Your task to perform on an android device: install app "Adobe Acrobat Reader" Image 0: 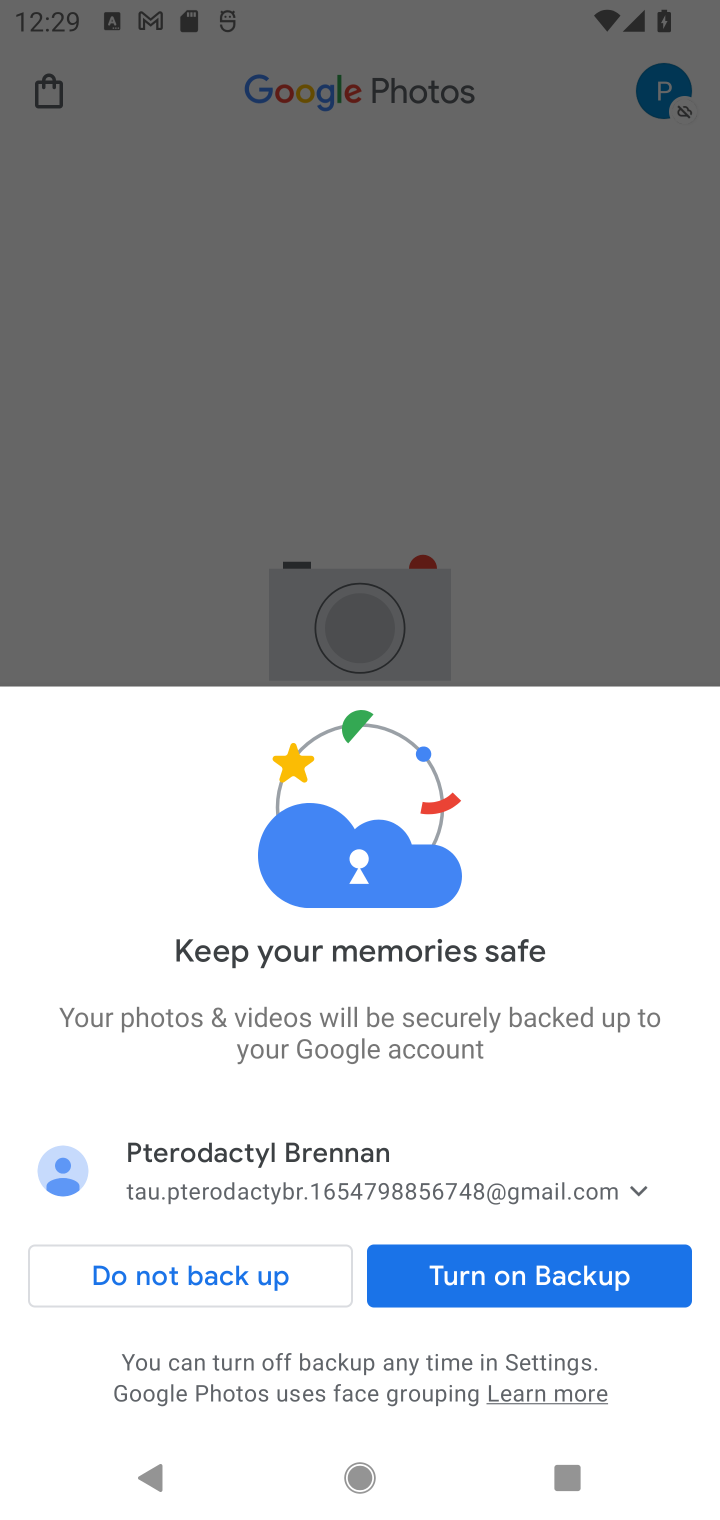
Step 0: press home button
Your task to perform on an android device: install app "Adobe Acrobat Reader" Image 1: 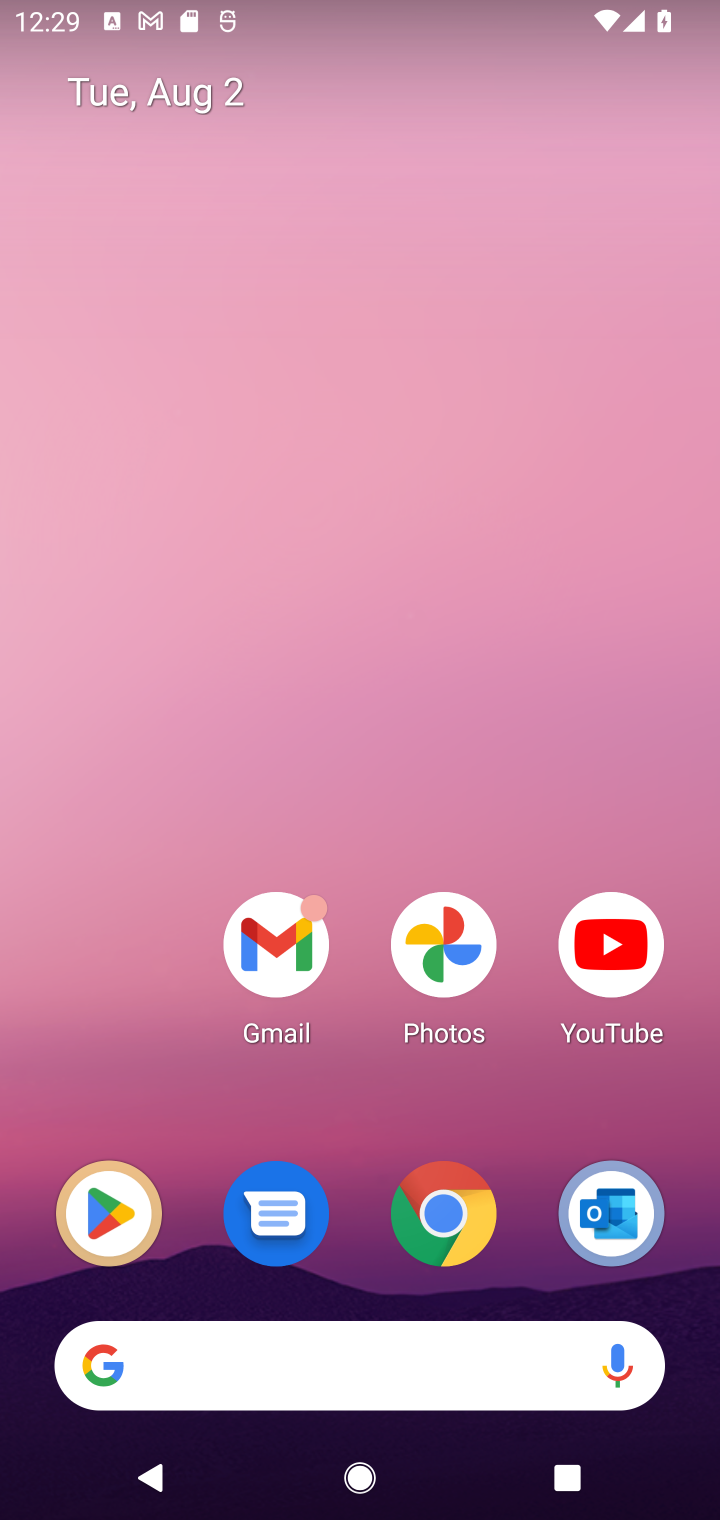
Step 1: click (94, 1241)
Your task to perform on an android device: install app "Adobe Acrobat Reader" Image 2: 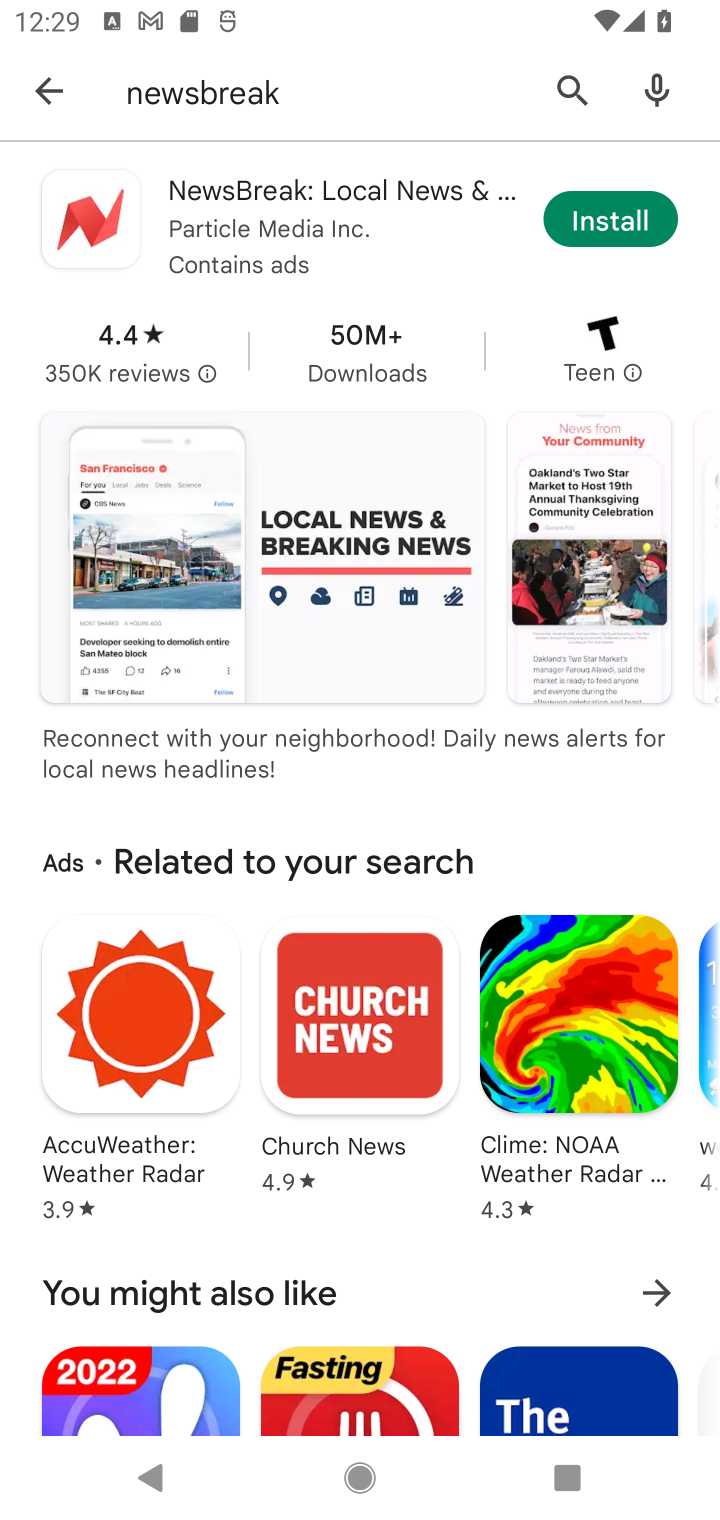
Step 2: click (52, 98)
Your task to perform on an android device: install app "Adobe Acrobat Reader" Image 3: 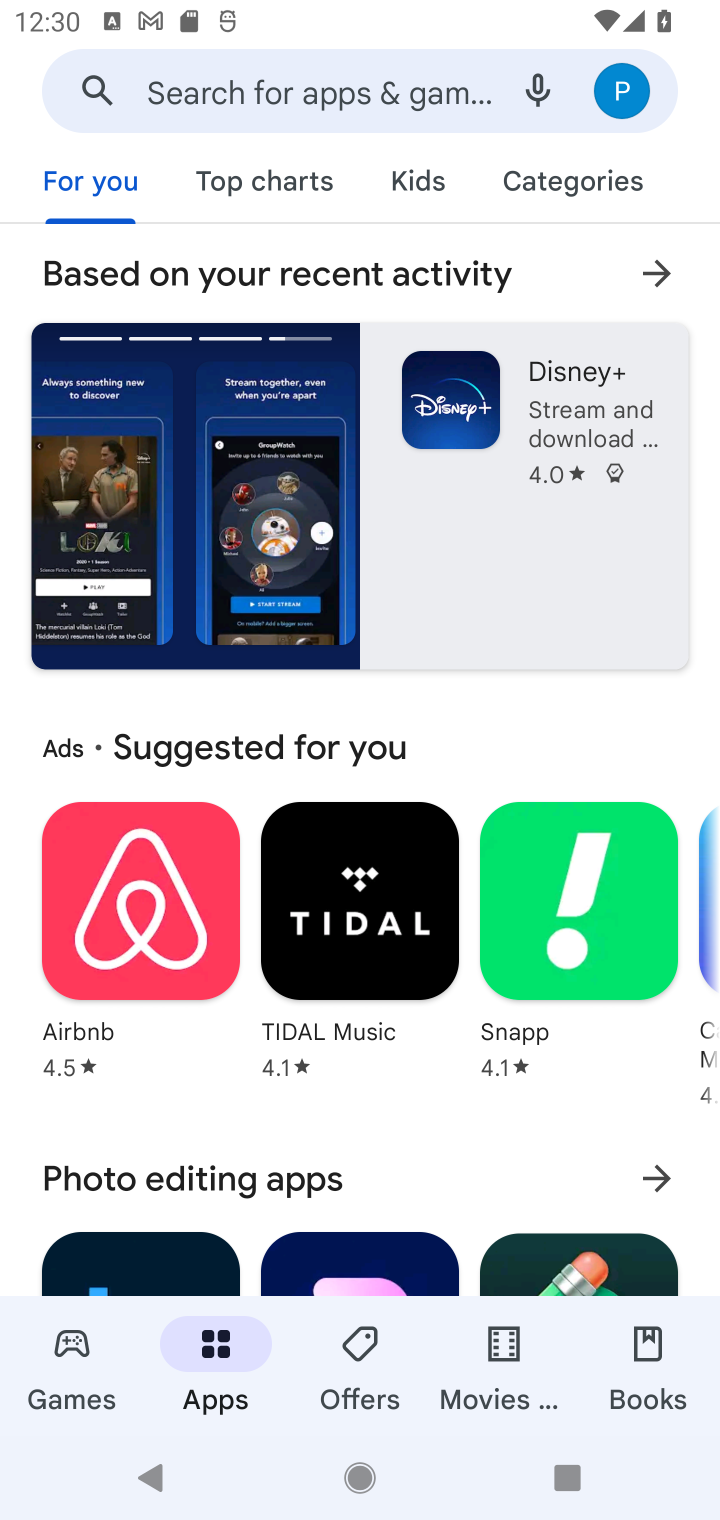
Step 3: click (340, 98)
Your task to perform on an android device: install app "Adobe Acrobat Reader" Image 4: 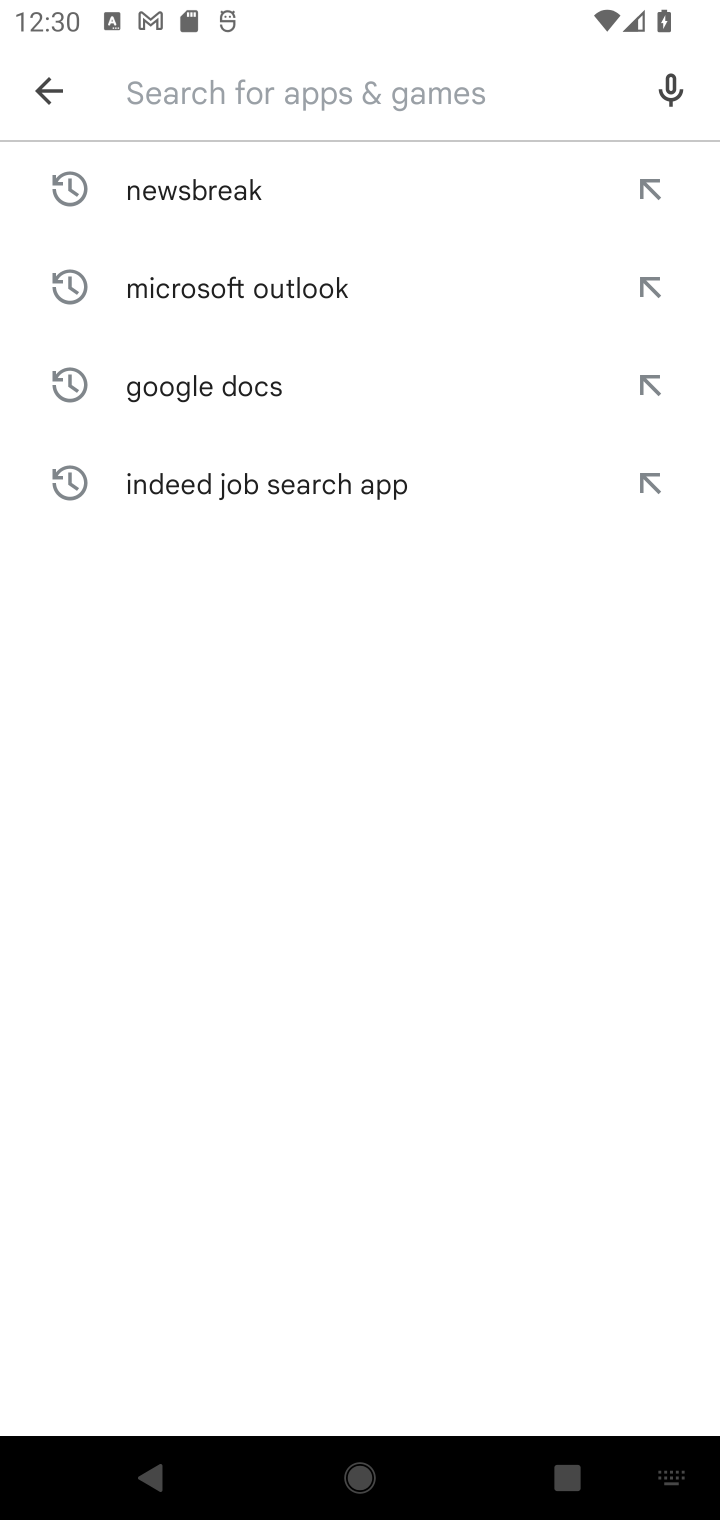
Step 4: type "Adobe Acrobat Reader"
Your task to perform on an android device: install app "Adobe Acrobat Reader" Image 5: 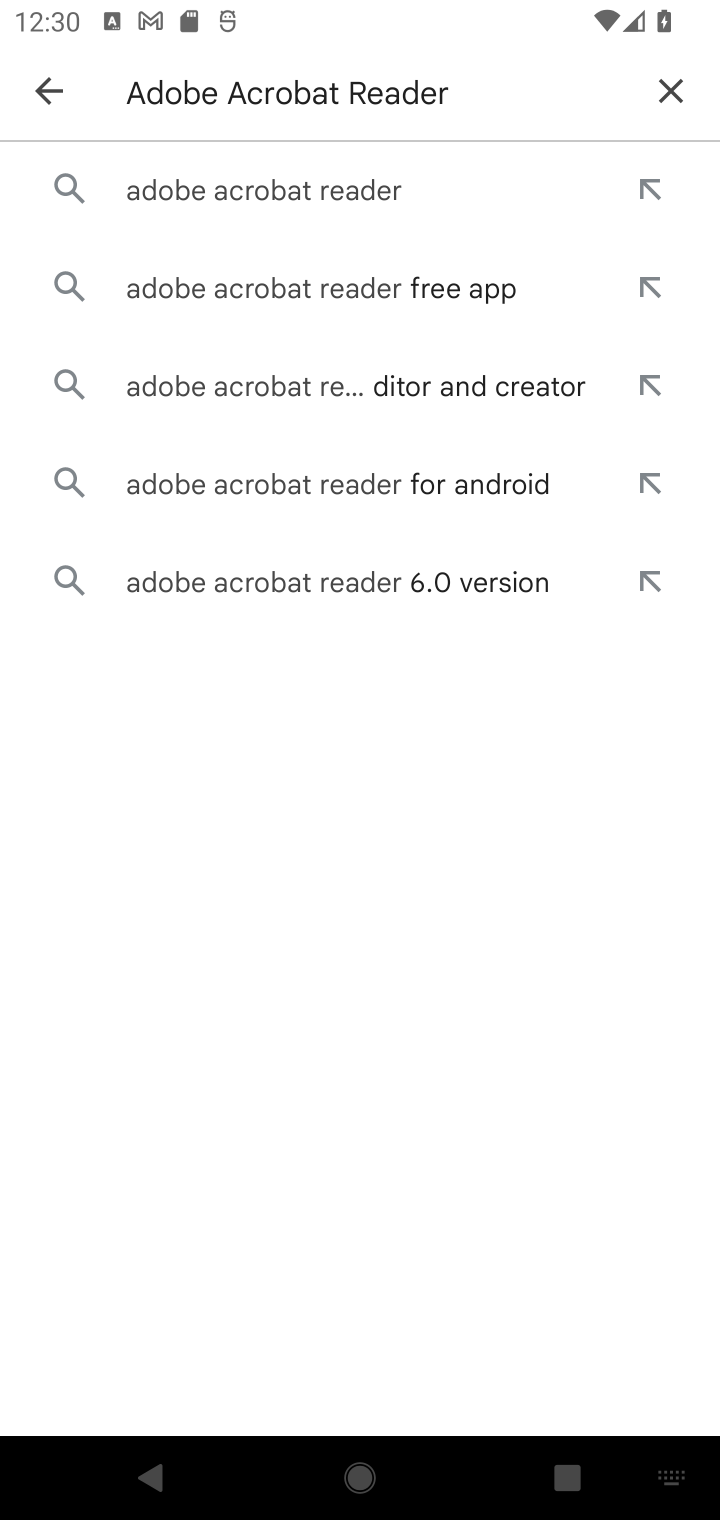
Step 5: click (293, 180)
Your task to perform on an android device: install app "Adobe Acrobat Reader" Image 6: 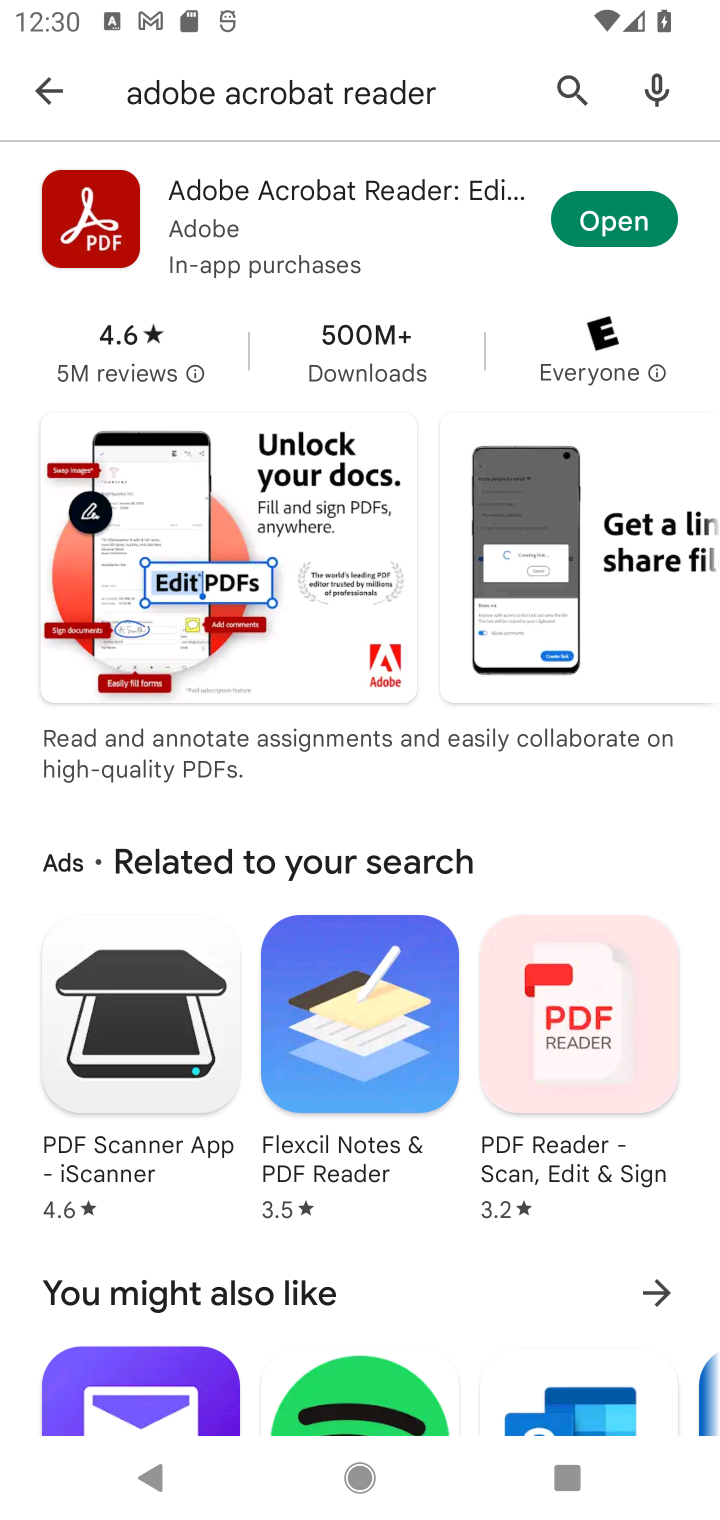
Step 6: click (635, 219)
Your task to perform on an android device: install app "Adobe Acrobat Reader" Image 7: 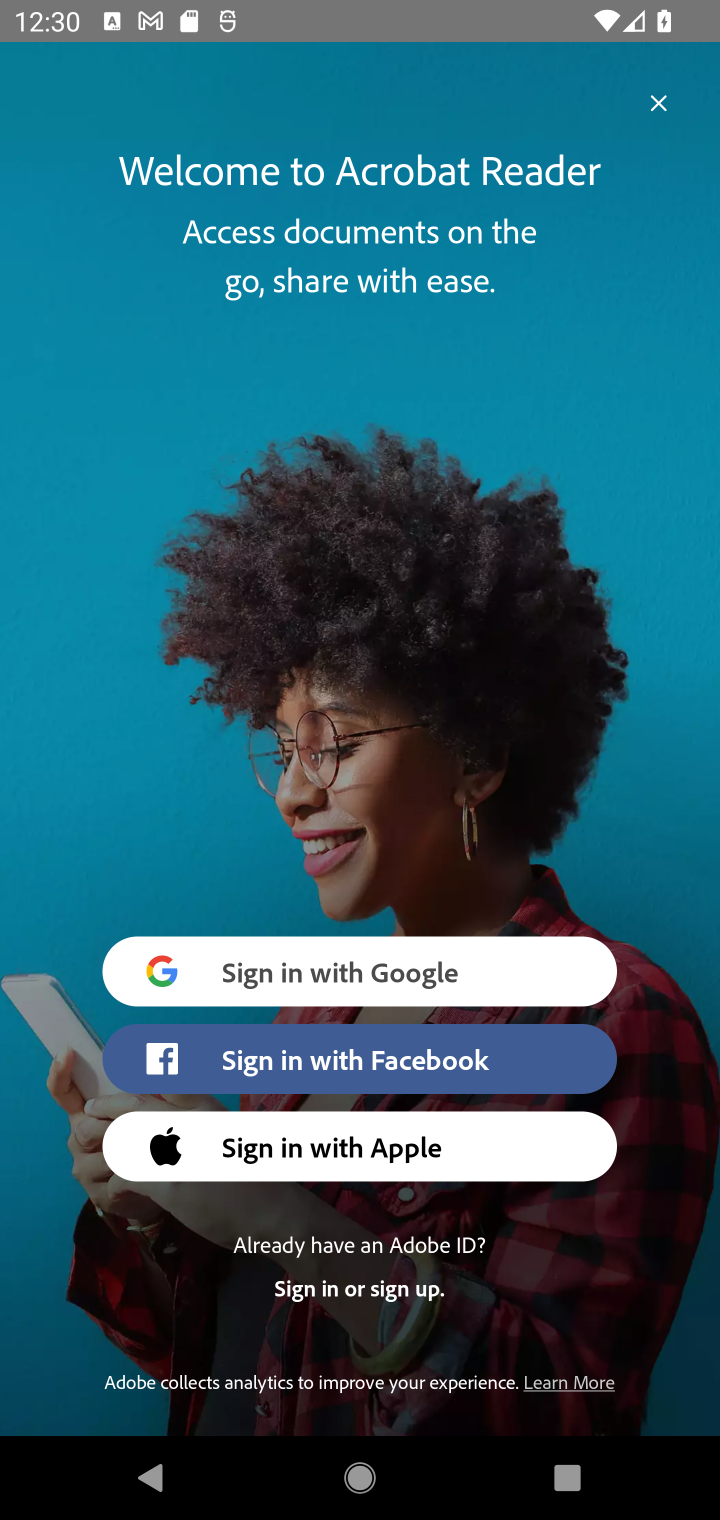
Step 7: task complete